Your task to perform on an android device: Go to privacy settings Image 0: 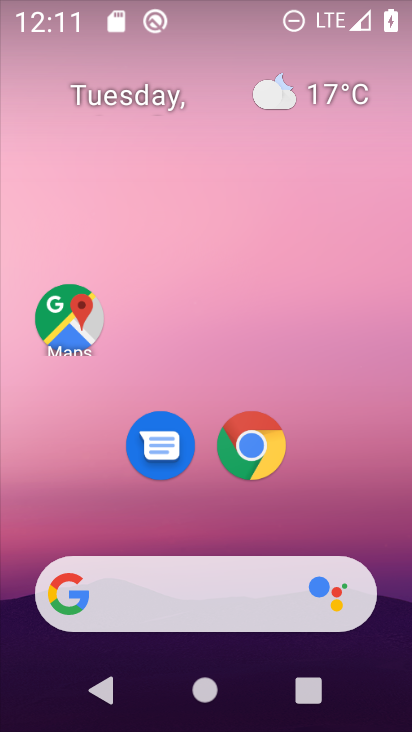
Step 0: drag from (401, 616) to (309, 37)
Your task to perform on an android device: Go to privacy settings Image 1: 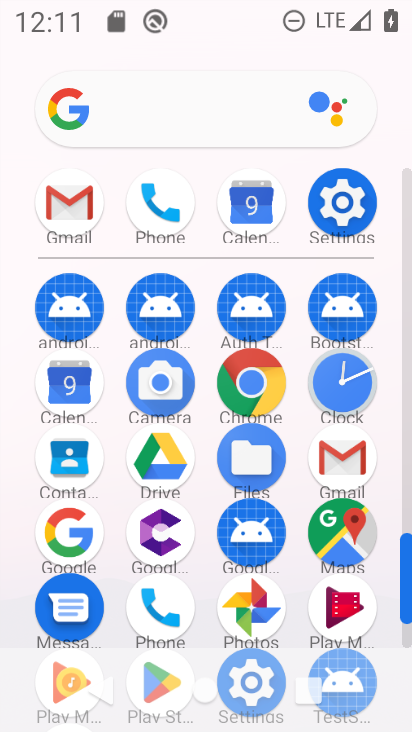
Step 1: click (405, 508)
Your task to perform on an android device: Go to privacy settings Image 2: 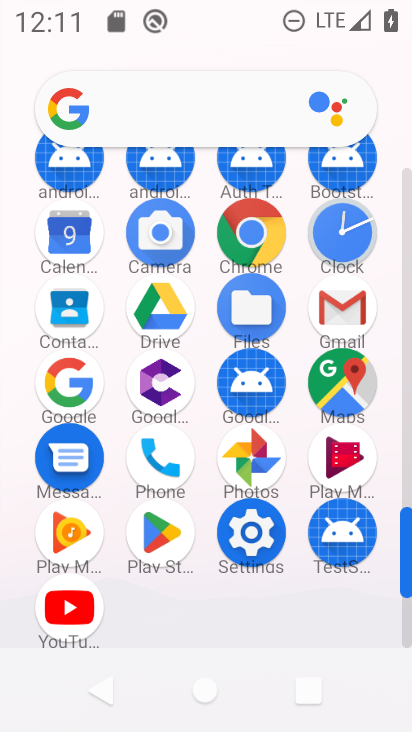
Step 2: click (252, 530)
Your task to perform on an android device: Go to privacy settings Image 3: 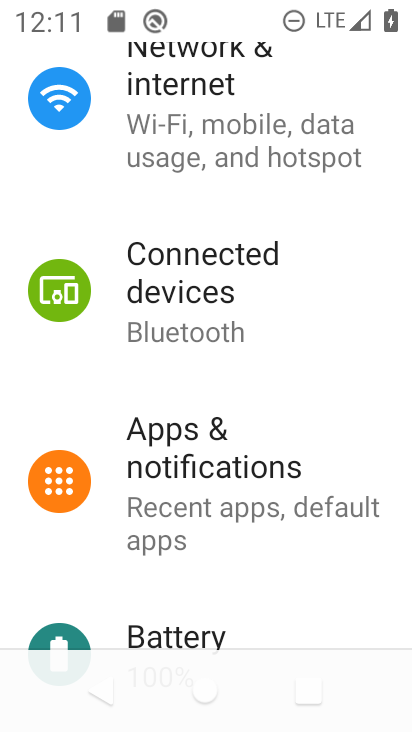
Step 3: drag from (369, 614) to (209, 228)
Your task to perform on an android device: Go to privacy settings Image 4: 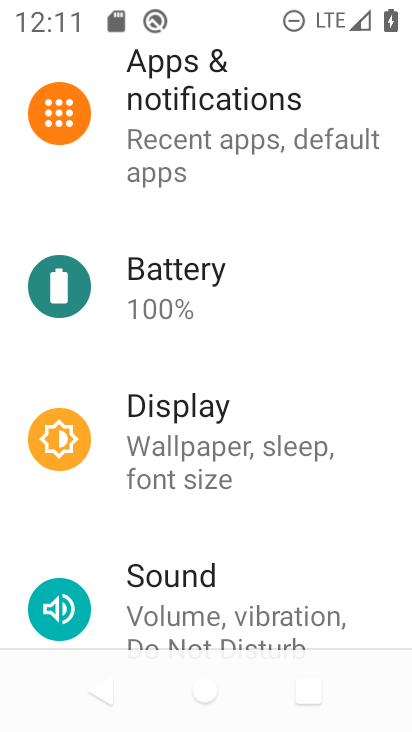
Step 4: drag from (345, 534) to (244, 215)
Your task to perform on an android device: Go to privacy settings Image 5: 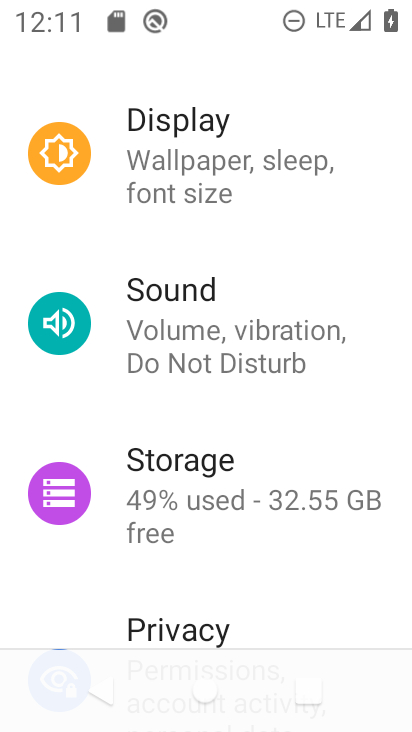
Step 5: drag from (345, 558) to (257, 215)
Your task to perform on an android device: Go to privacy settings Image 6: 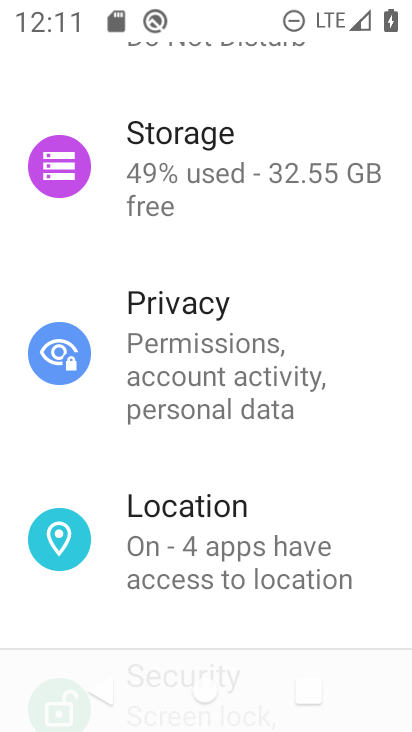
Step 6: click (190, 340)
Your task to perform on an android device: Go to privacy settings Image 7: 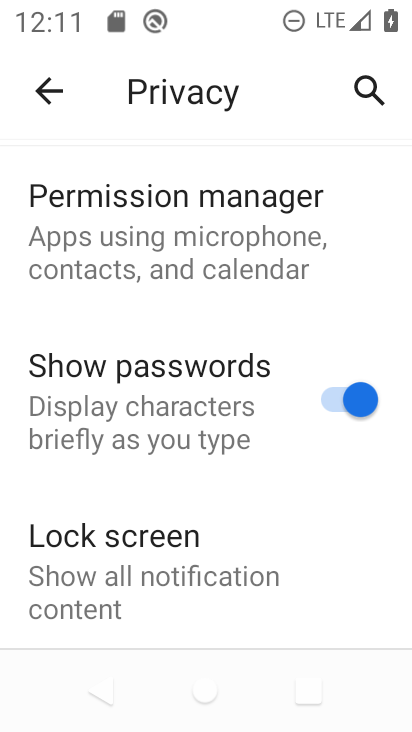
Step 7: drag from (339, 592) to (249, 227)
Your task to perform on an android device: Go to privacy settings Image 8: 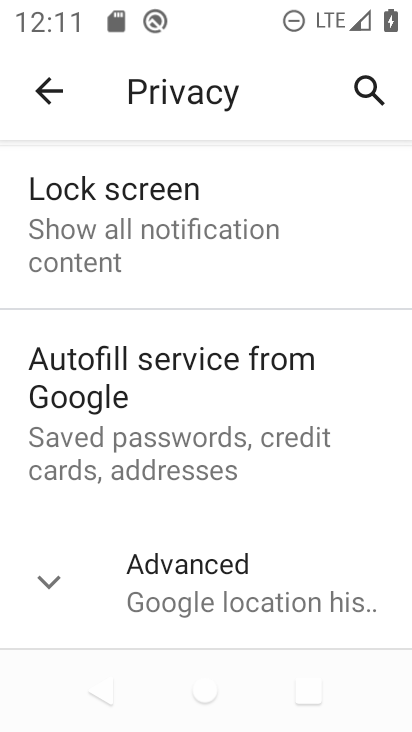
Step 8: drag from (273, 515) to (198, 280)
Your task to perform on an android device: Go to privacy settings Image 9: 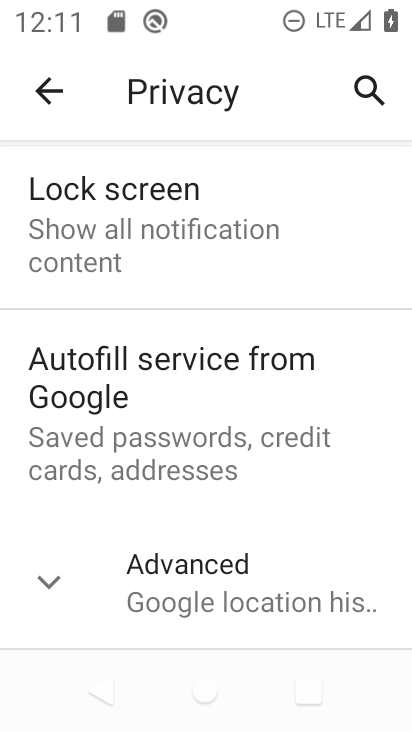
Step 9: click (51, 576)
Your task to perform on an android device: Go to privacy settings Image 10: 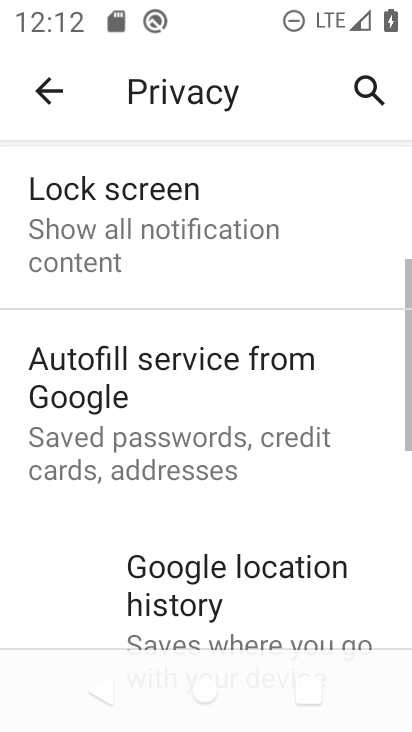
Step 10: task complete